Your task to perform on an android device: Do I have any events today? Image 0: 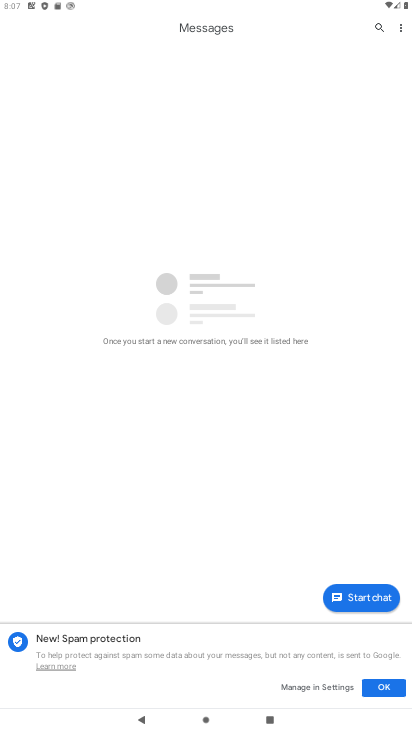
Step 0: press home button
Your task to perform on an android device: Do I have any events today? Image 1: 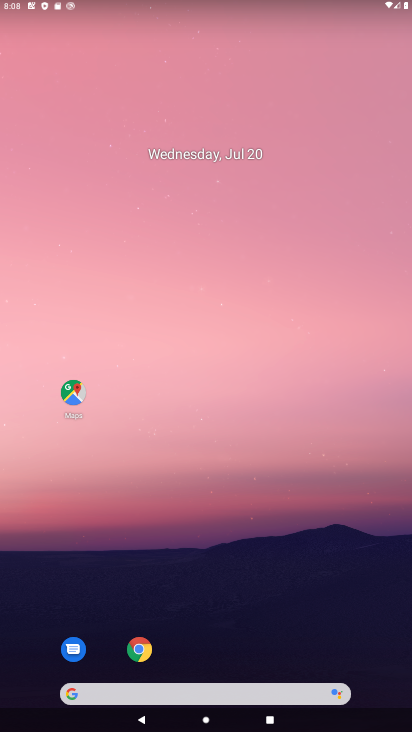
Step 1: drag from (224, 669) to (205, 32)
Your task to perform on an android device: Do I have any events today? Image 2: 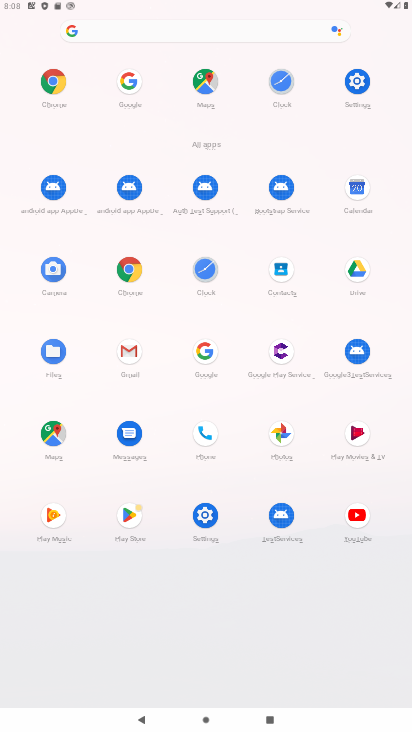
Step 2: click (355, 188)
Your task to perform on an android device: Do I have any events today? Image 3: 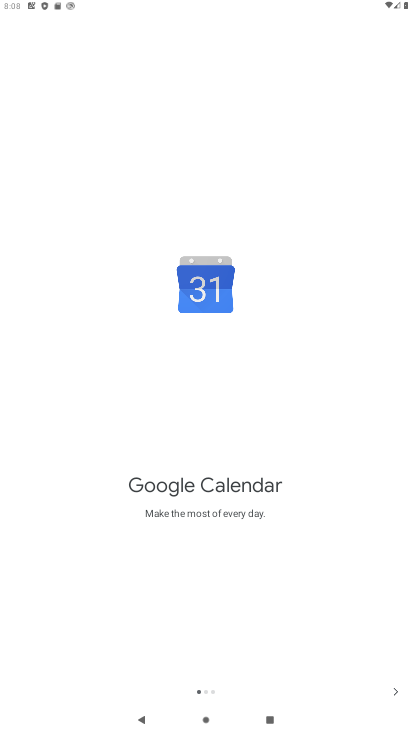
Step 3: click (392, 690)
Your task to perform on an android device: Do I have any events today? Image 4: 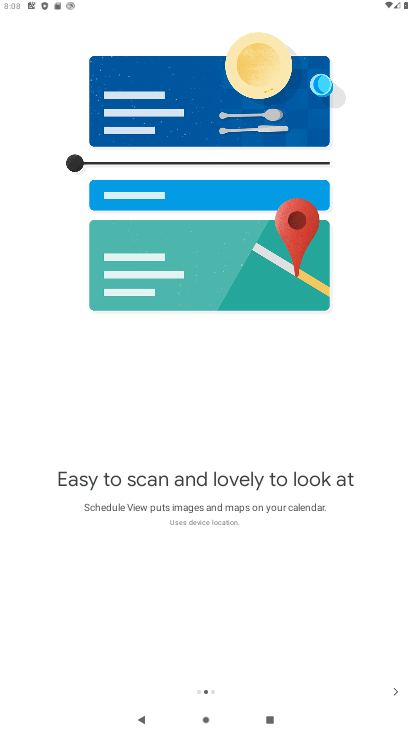
Step 4: click (392, 690)
Your task to perform on an android device: Do I have any events today? Image 5: 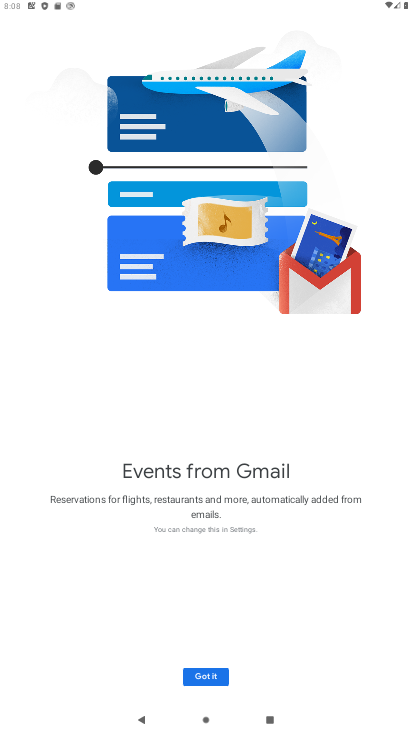
Step 5: click (392, 690)
Your task to perform on an android device: Do I have any events today? Image 6: 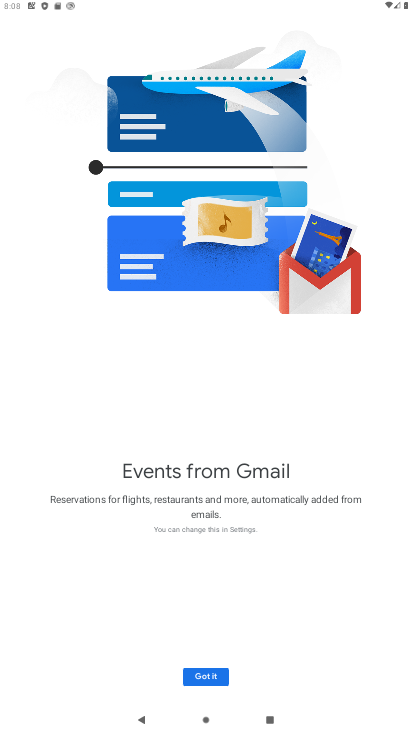
Step 6: click (201, 679)
Your task to perform on an android device: Do I have any events today? Image 7: 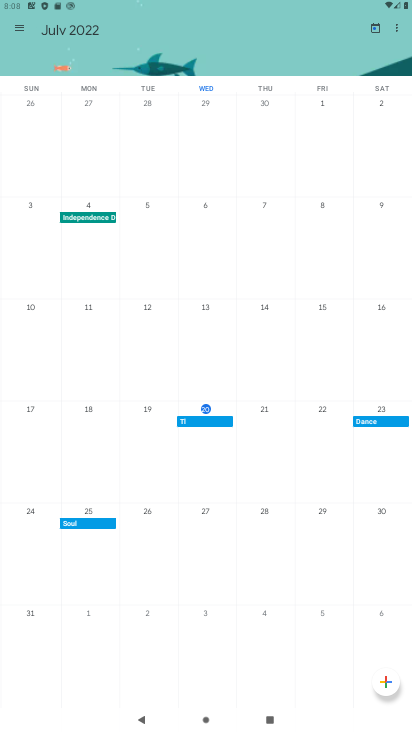
Step 7: click (210, 414)
Your task to perform on an android device: Do I have any events today? Image 8: 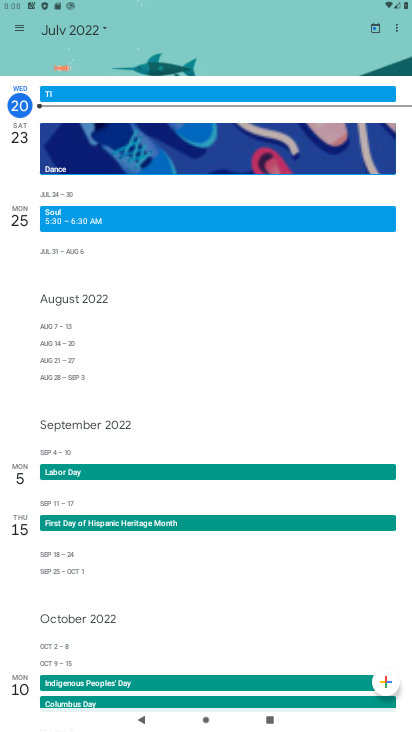
Step 8: task complete